Your task to perform on an android device: When is my next meeting? Image 0: 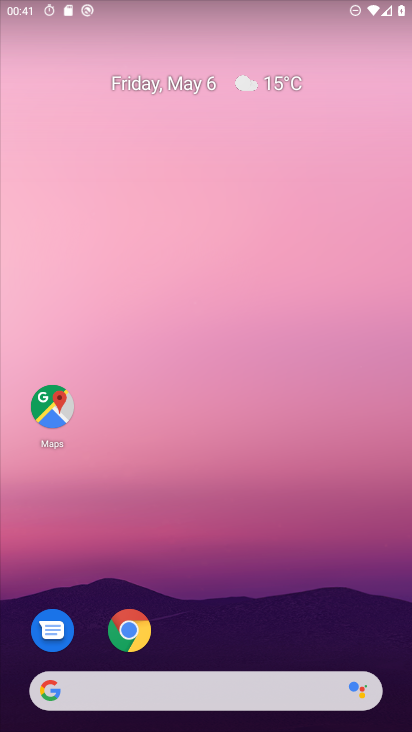
Step 0: drag from (269, 628) to (269, 145)
Your task to perform on an android device: When is my next meeting? Image 1: 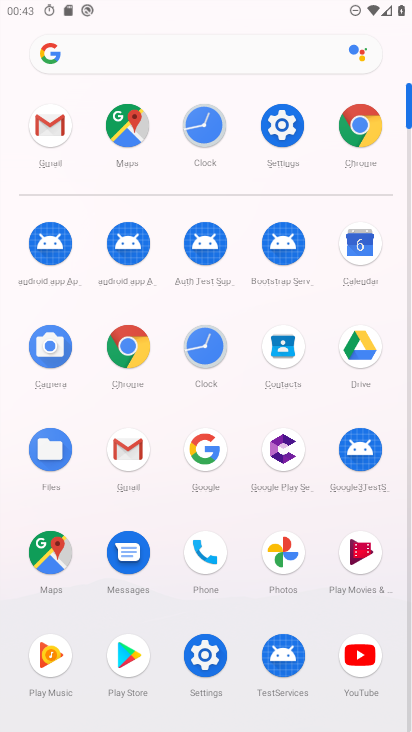
Step 1: click (359, 237)
Your task to perform on an android device: When is my next meeting? Image 2: 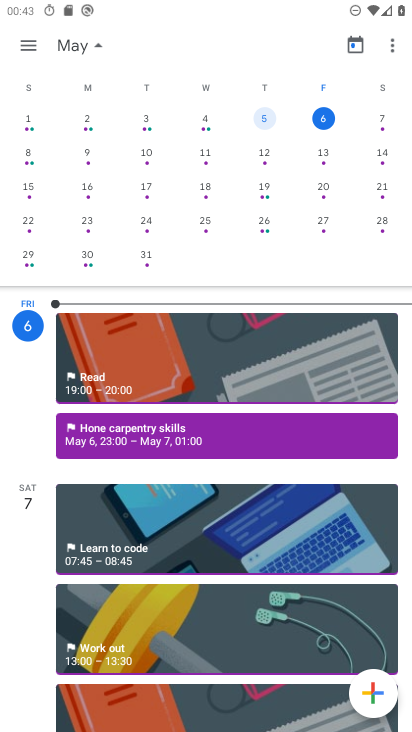
Step 2: task complete